Your task to perform on an android device: What's the weather going to be tomorrow? Image 0: 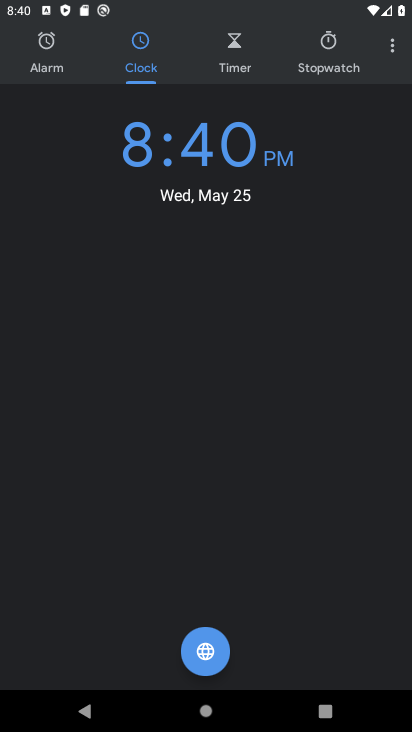
Step 0: press home button
Your task to perform on an android device: What's the weather going to be tomorrow? Image 1: 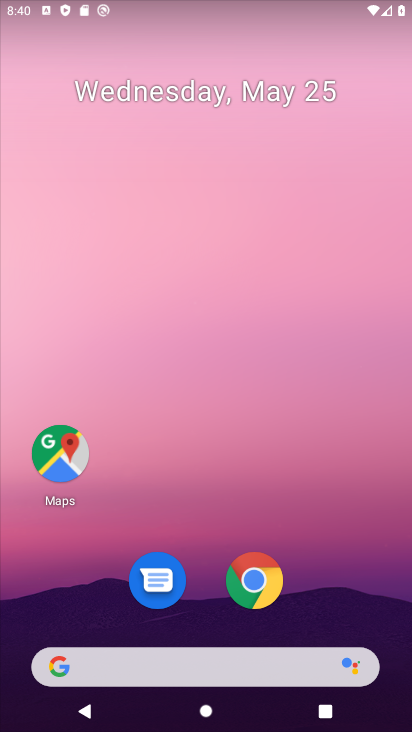
Step 1: click (187, 673)
Your task to perform on an android device: What's the weather going to be tomorrow? Image 2: 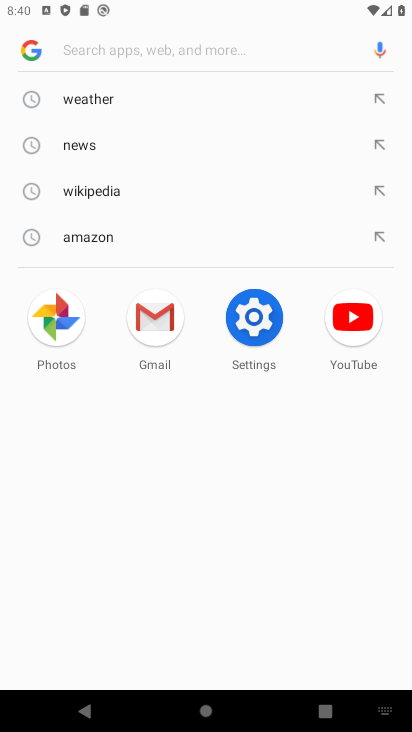
Step 2: click (98, 98)
Your task to perform on an android device: What's the weather going to be tomorrow? Image 3: 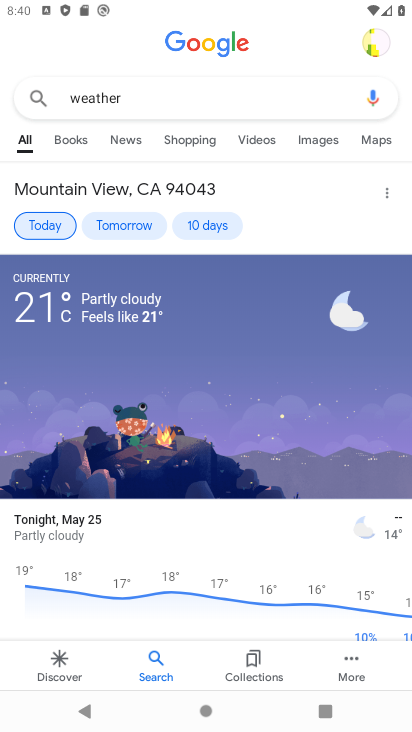
Step 3: click (120, 221)
Your task to perform on an android device: What's the weather going to be tomorrow? Image 4: 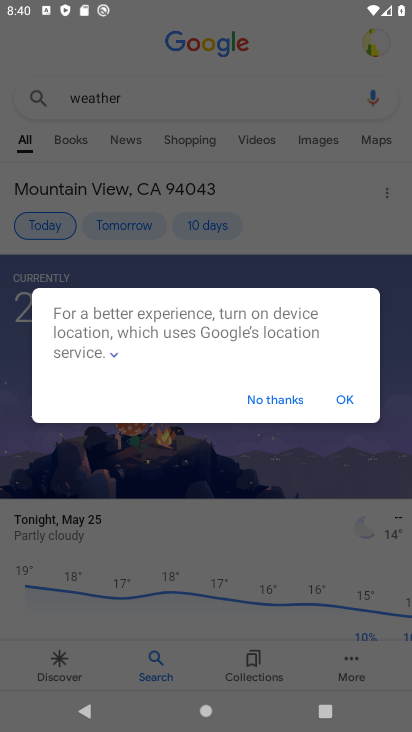
Step 4: click (339, 391)
Your task to perform on an android device: What's the weather going to be tomorrow? Image 5: 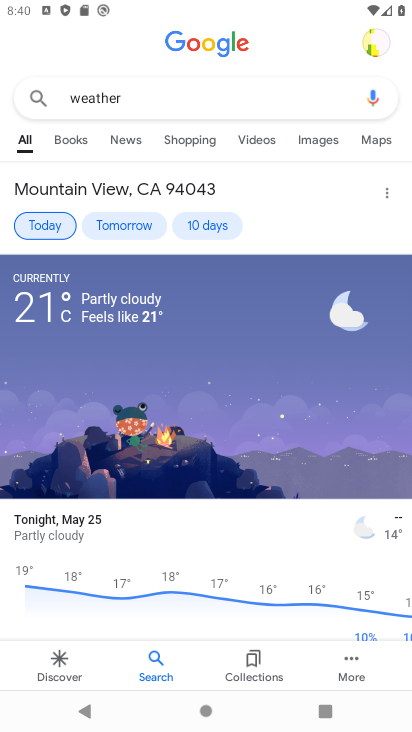
Step 5: task complete